Your task to perform on an android device: toggle priority inbox in the gmail app Image 0: 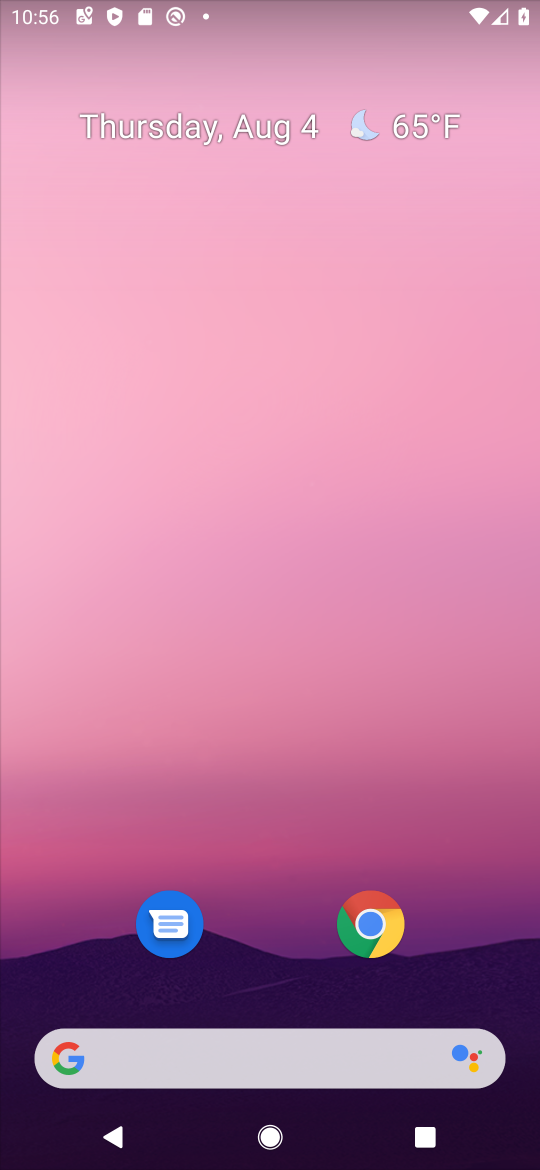
Step 0: drag from (246, 796) to (277, 174)
Your task to perform on an android device: toggle priority inbox in the gmail app Image 1: 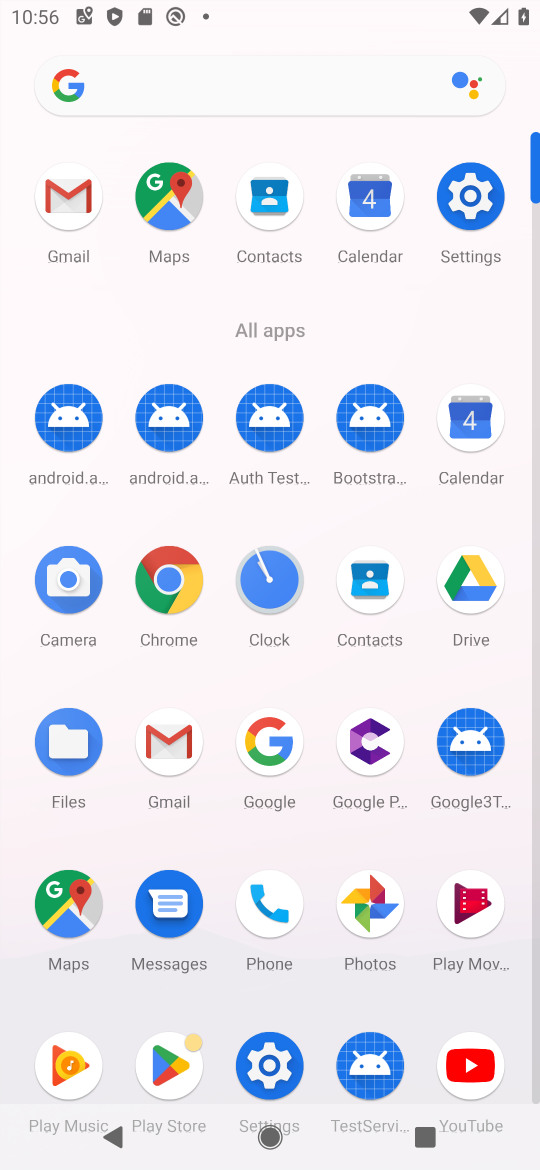
Step 1: click (176, 739)
Your task to perform on an android device: toggle priority inbox in the gmail app Image 2: 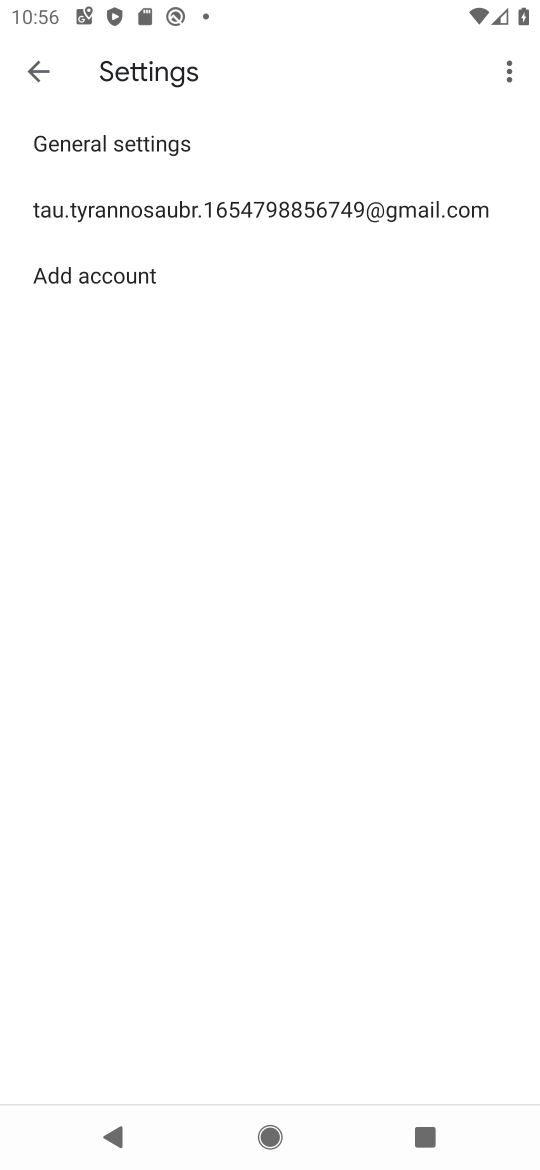
Step 2: task complete